Your task to perform on an android device: toggle notifications settings in the gmail app Image 0: 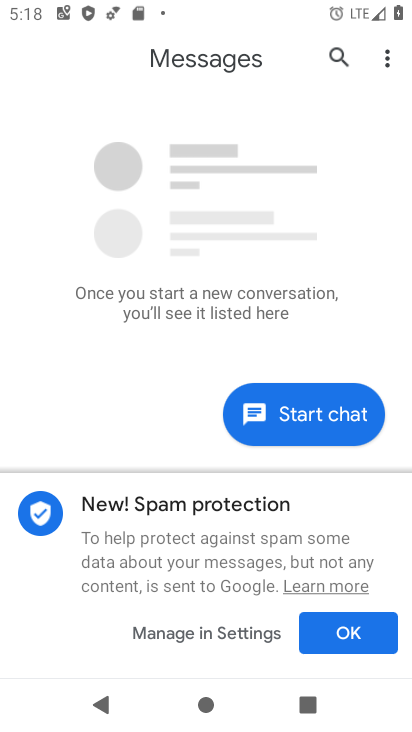
Step 0: press home button
Your task to perform on an android device: toggle notifications settings in the gmail app Image 1: 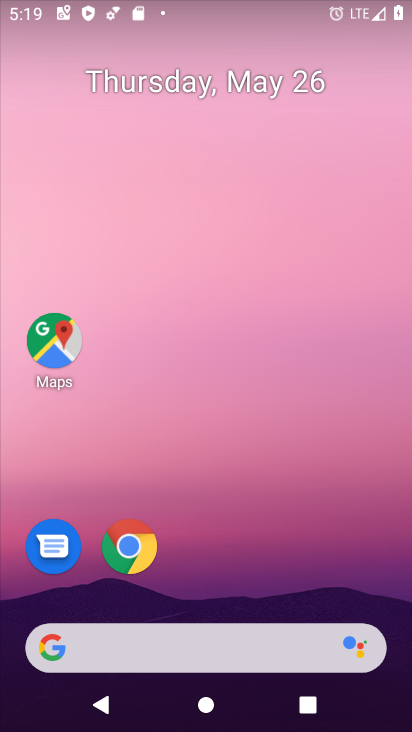
Step 1: drag from (284, 482) to (335, 95)
Your task to perform on an android device: toggle notifications settings in the gmail app Image 2: 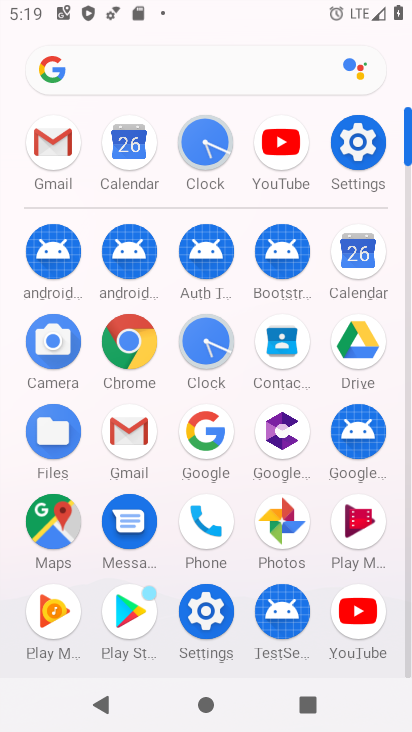
Step 2: click (51, 147)
Your task to perform on an android device: toggle notifications settings in the gmail app Image 3: 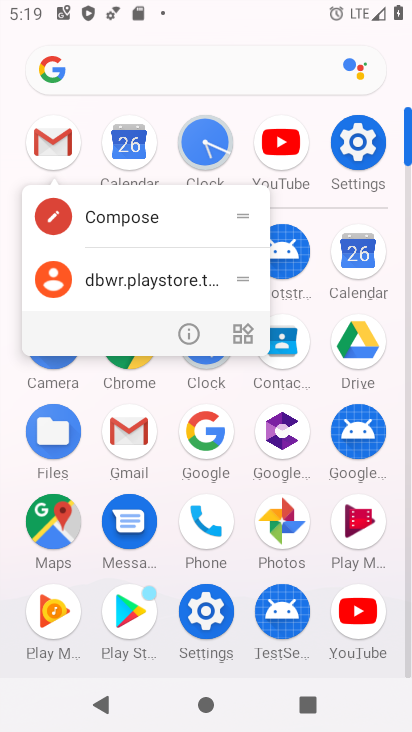
Step 3: click (193, 334)
Your task to perform on an android device: toggle notifications settings in the gmail app Image 4: 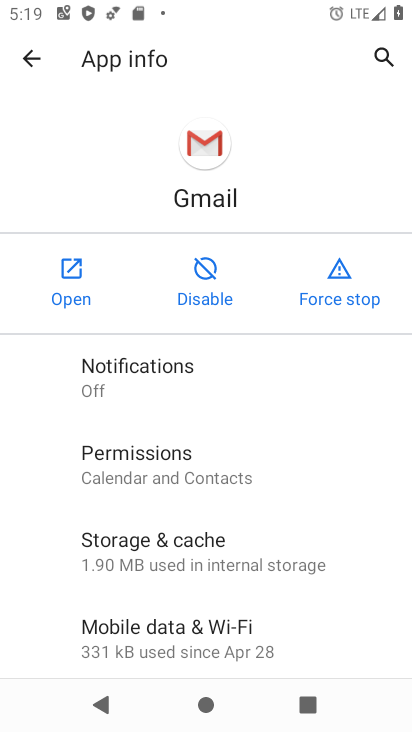
Step 4: click (129, 375)
Your task to perform on an android device: toggle notifications settings in the gmail app Image 5: 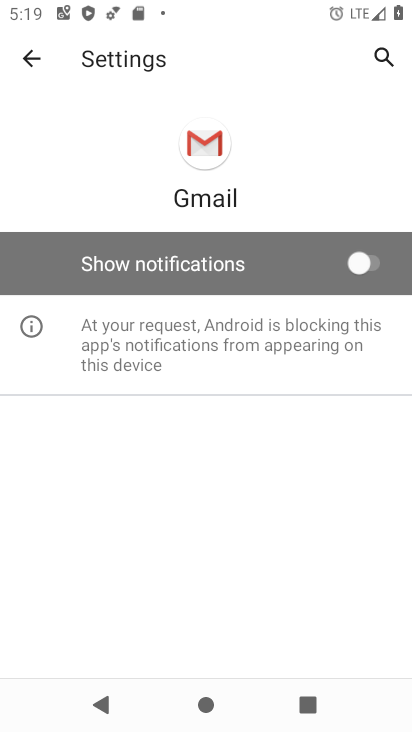
Step 5: click (367, 261)
Your task to perform on an android device: toggle notifications settings in the gmail app Image 6: 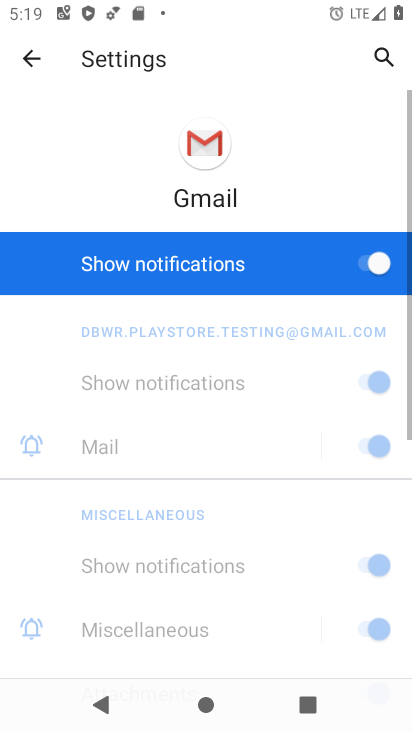
Step 6: task complete